Your task to perform on an android device: Open the map Image 0: 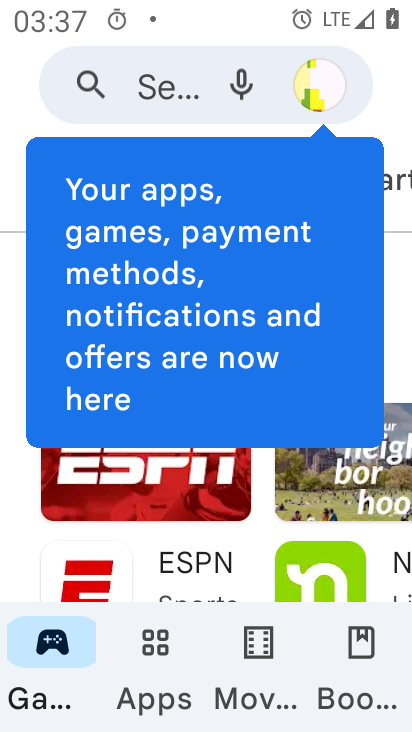
Step 0: press back button
Your task to perform on an android device: Open the map Image 1: 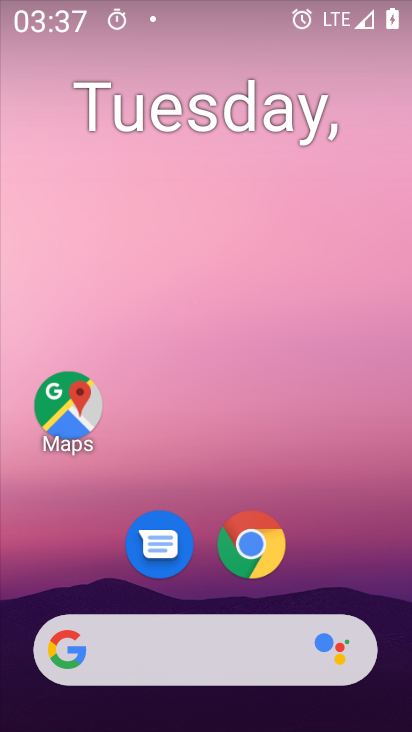
Step 1: drag from (348, 529) to (258, 53)
Your task to perform on an android device: Open the map Image 2: 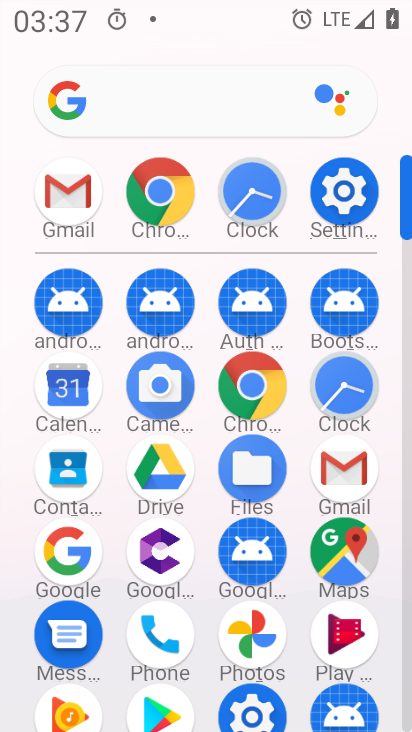
Step 2: click (341, 548)
Your task to perform on an android device: Open the map Image 3: 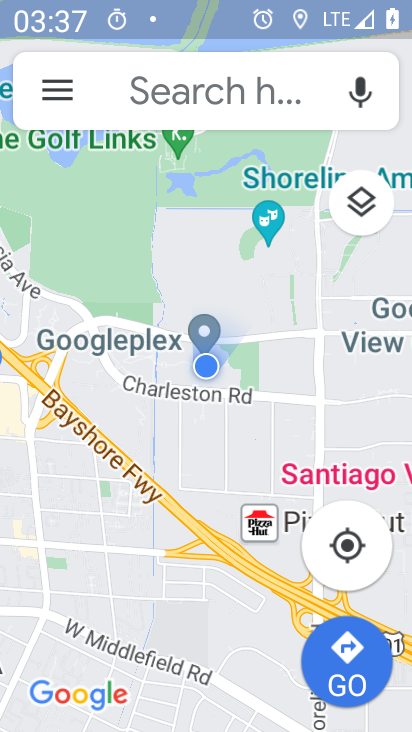
Step 3: task complete